Your task to perform on an android device: Add "logitech g pro" to the cart on newegg.com, then select checkout. Image 0: 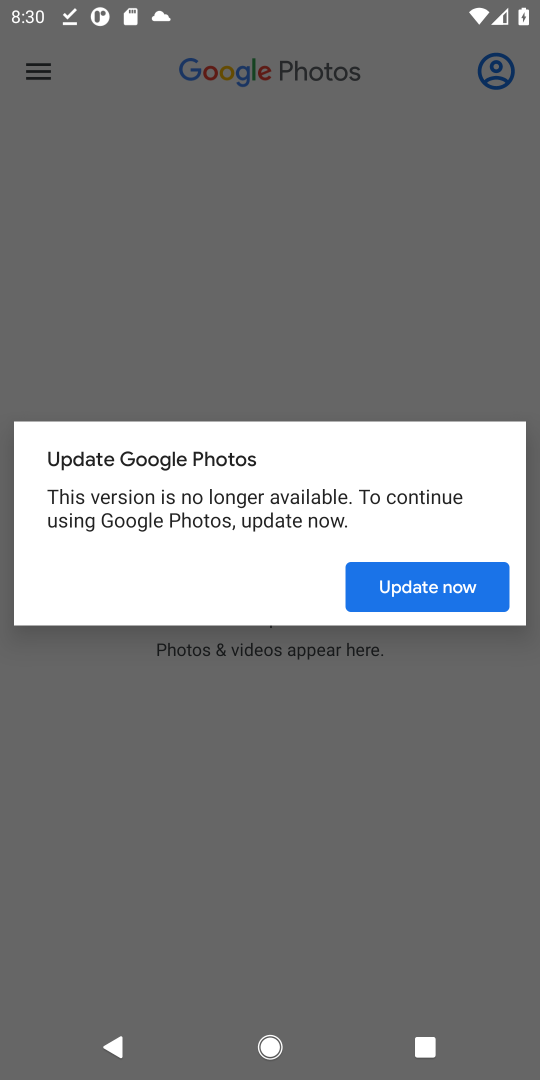
Step 0: press home button
Your task to perform on an android device: Add "logitech g pro" to the cart on newegg.com, then select checkout. Image 1: 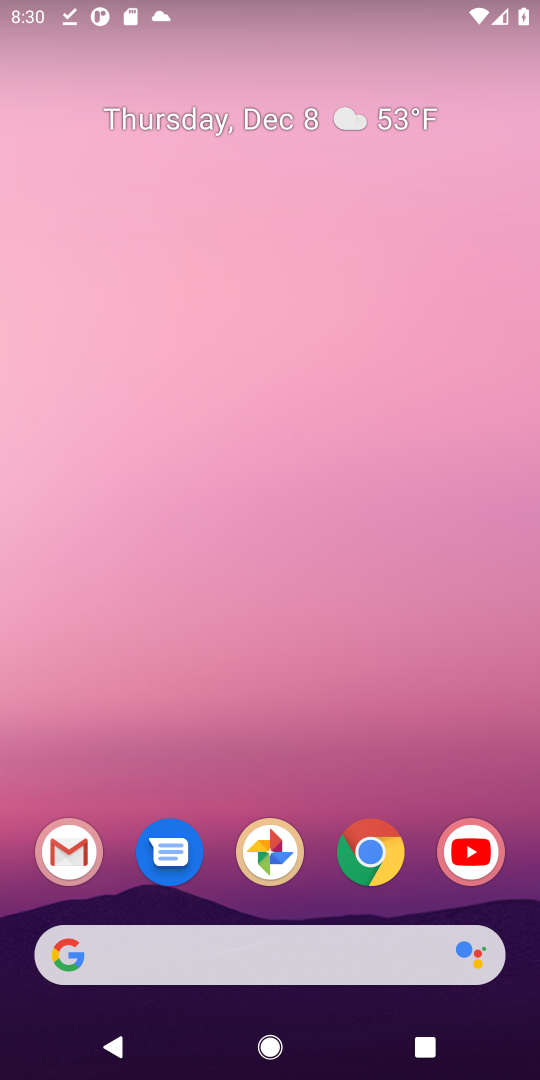
Step 1: click (299, 979)
Your task to perform on an android device: Add "logitech g pro" to the cart on newegg.com, then select checkout. Image 2: 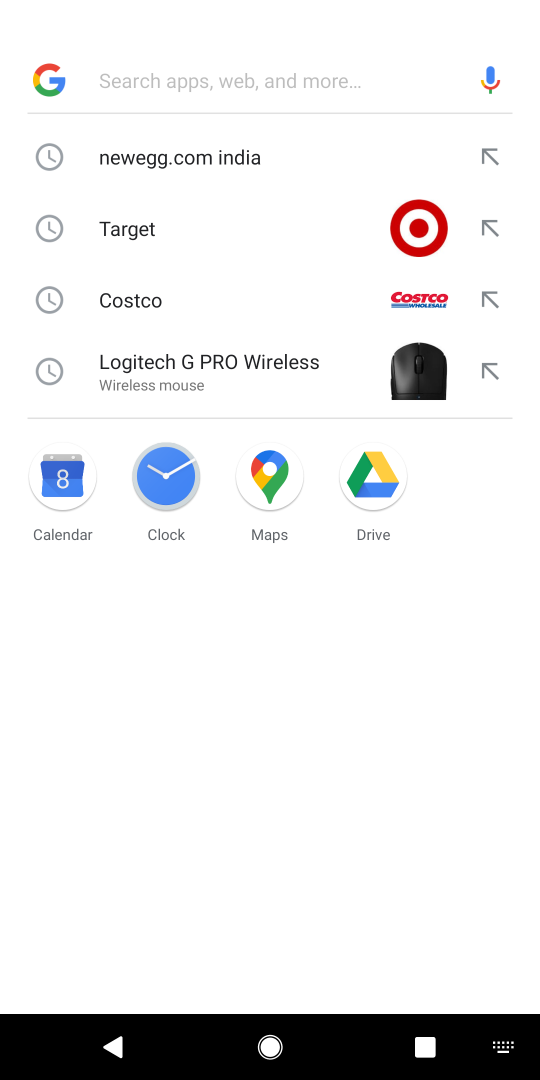
Step 2: type "logitech  g pro"
Your task to perform on an android device: Add "logitech g pro" to the cart on newegg.com, then select checkout. Image 3: 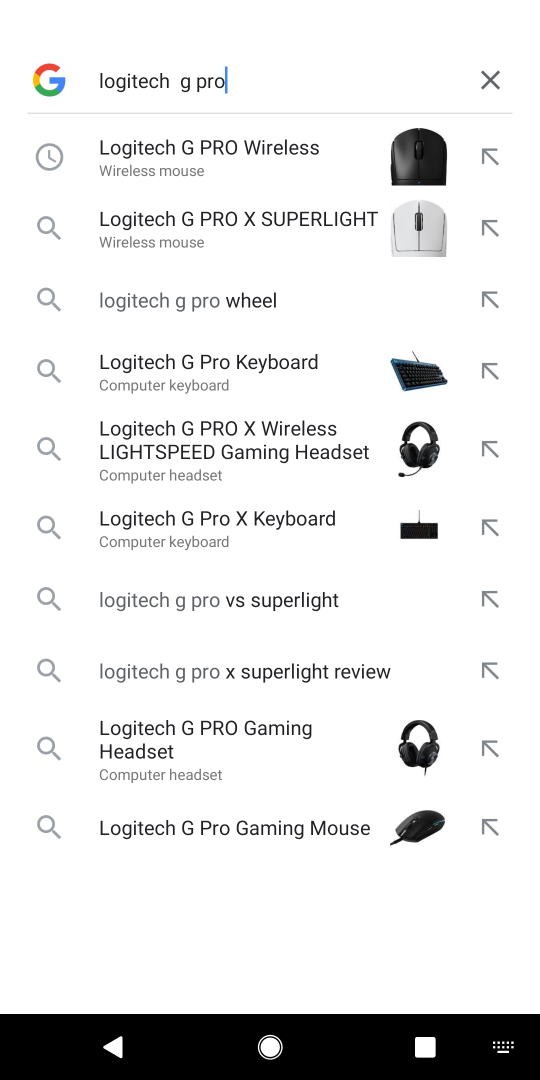
Step 3: click (197, 172)
Your task to perform on an android device: Add "logitech g pro" to the cart on newegg.com, then select checkout. Image 4: 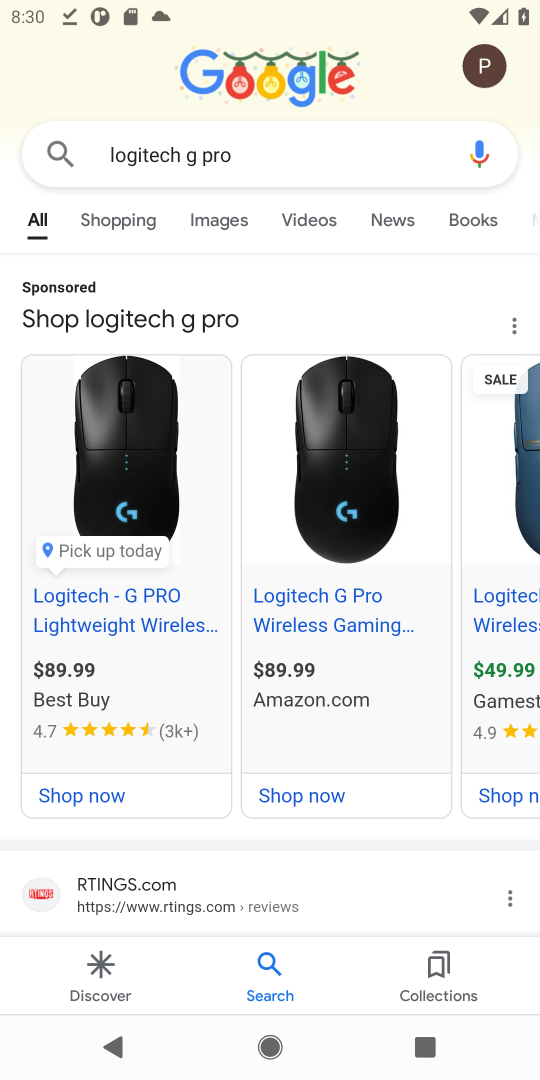
Step 4: drag from (199, 872) to (124, 240)
Your task to perform on an android device: Add "logitech g pro" to the cart on newegg.com, then select checkout. Image 5: 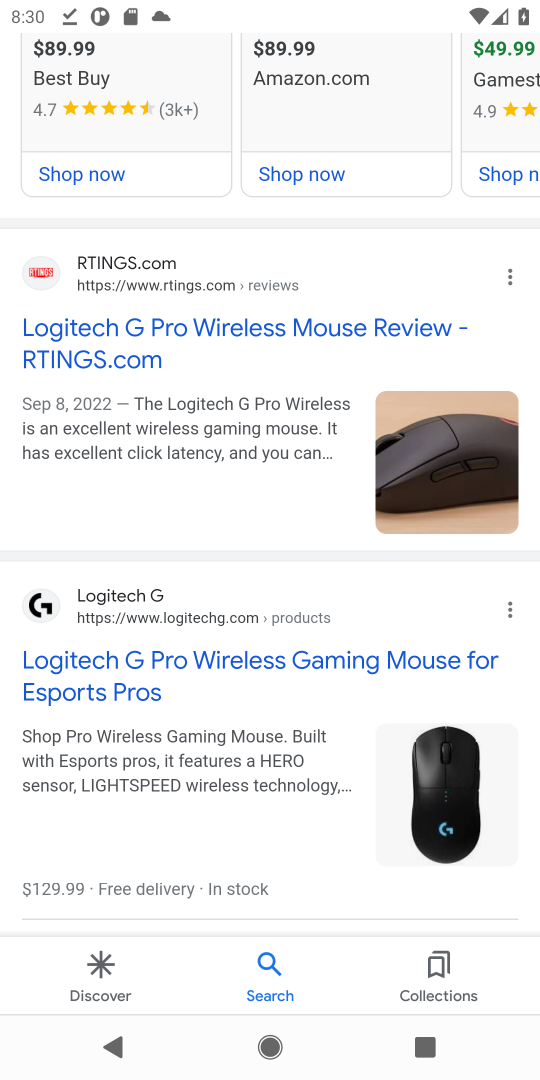
Step 5: click (136, 339)
Your task to perform on an android device: Add "logitech g pro" to the cart on newegg.com, then select checkout. Image 6: 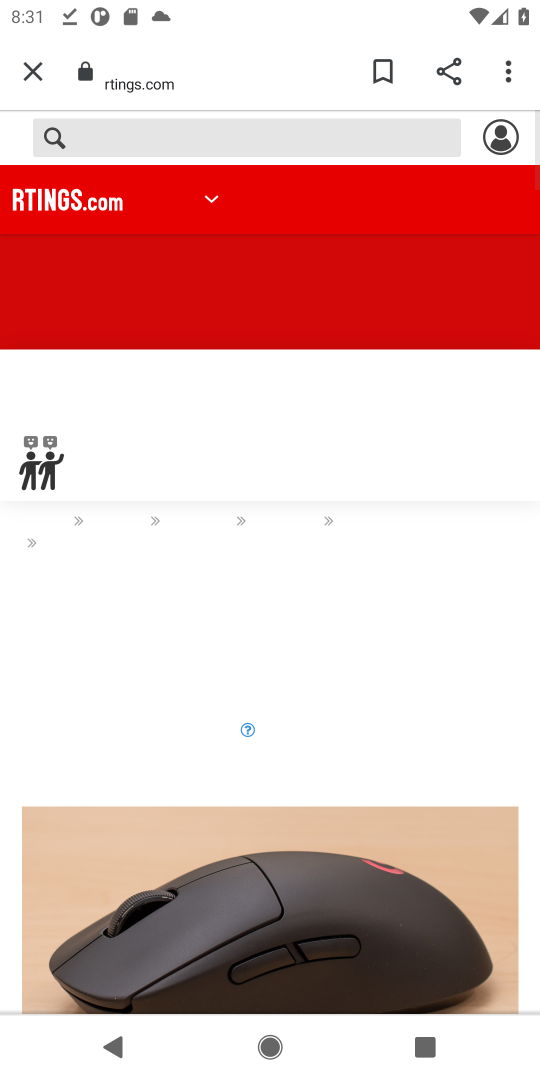
Step 6: task complete